Your task to perform on an android device: Show me recent news Image 0: 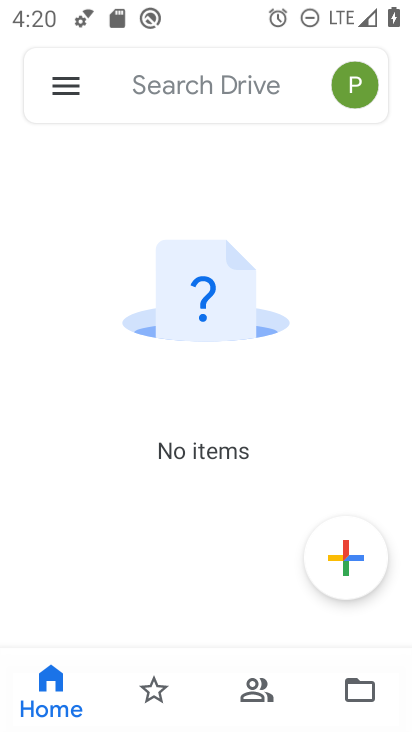
Step 0: press back button
Your task to perform on an android device: Show me recent news Image 1: 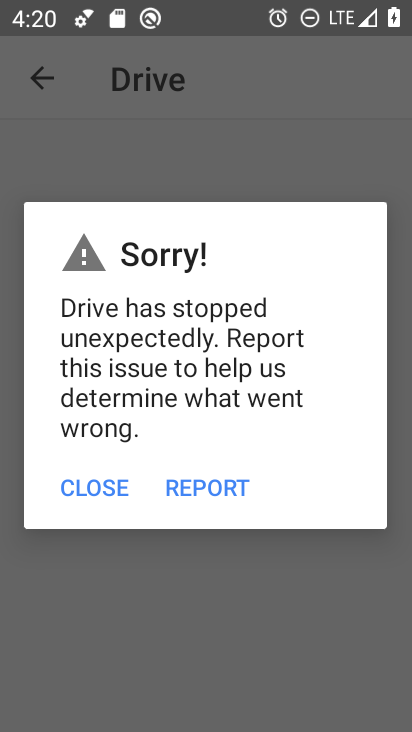
Step 1: click (38, 500)
Your task to perform on an android device: Show me recent news Image 2: 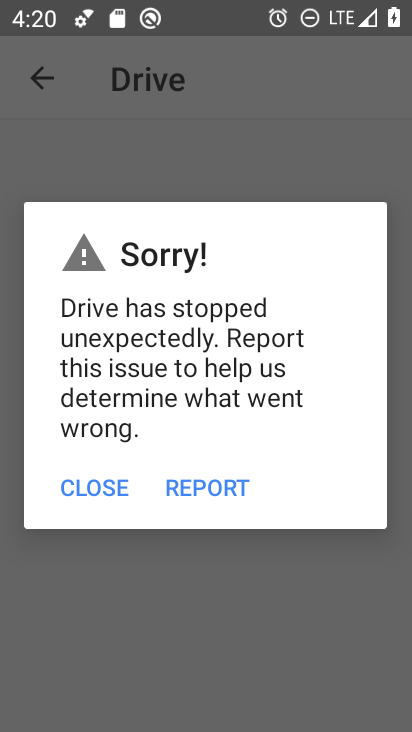
Step 2: click (99, 485)
Your task to perform on an android device: Show me recent news Image 3: 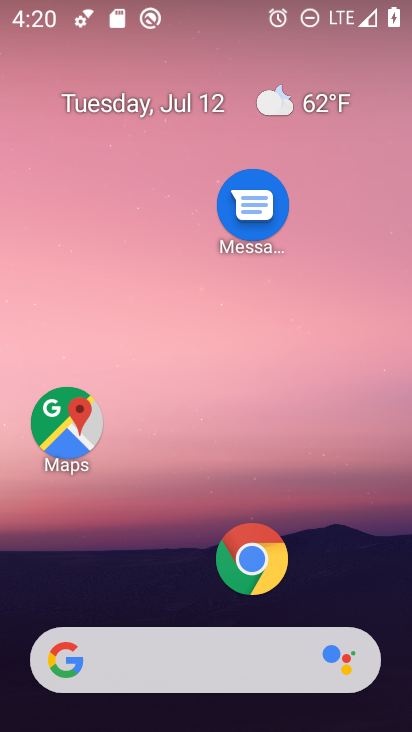
Step 3: click (176, 655)
Your task to perform on an android device: Show me recent news Image 4: 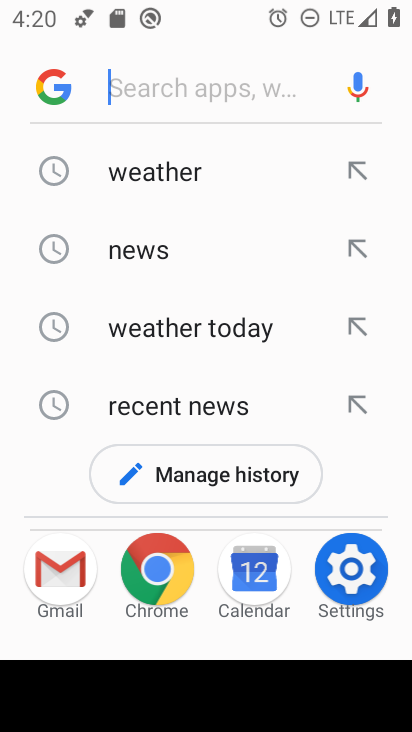
Step 4: click (173, 404)
Your task to perform on an android device: Show me recent news Image 5: 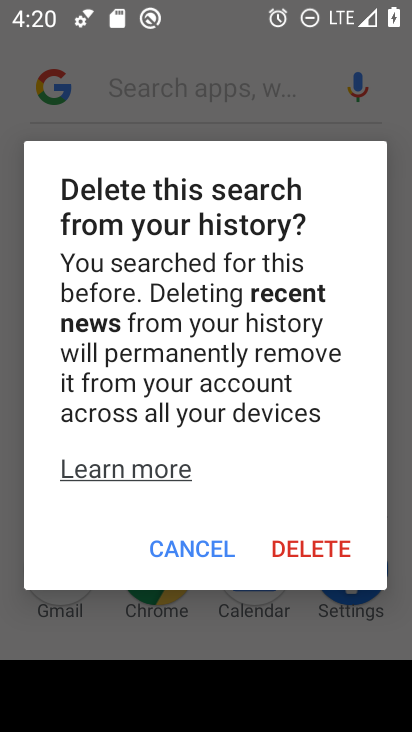
Step 5: click (196, 551)
Your task to perform on an android device: Show me recent news Image 6: 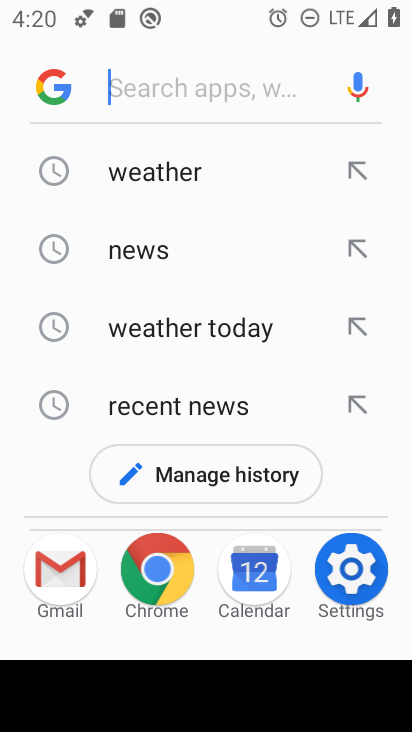
Step 6: click (176, 402)
Your task to perform on an android device: Show me recent news Image 7: 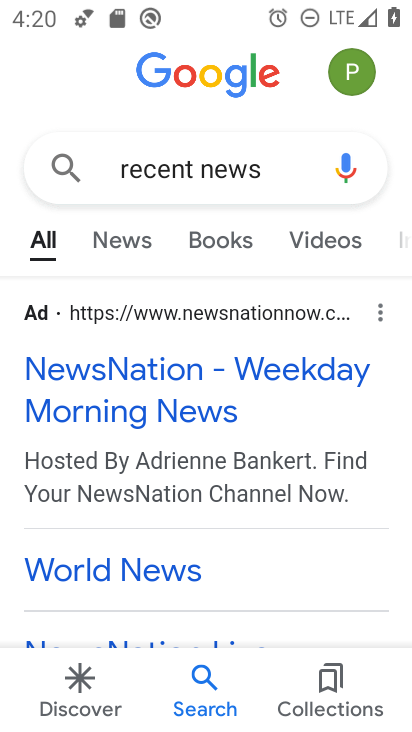
Step 7: task complete